Your task to perform on an android device: change the clock display to digital Image 0: 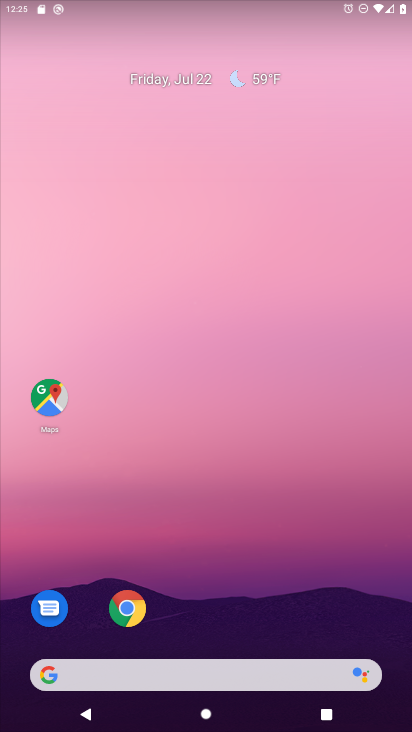
Step 0: drag from (337, 599) to (160, 5)
Your task to perform on an android device: change the clock display to digital Image 1: 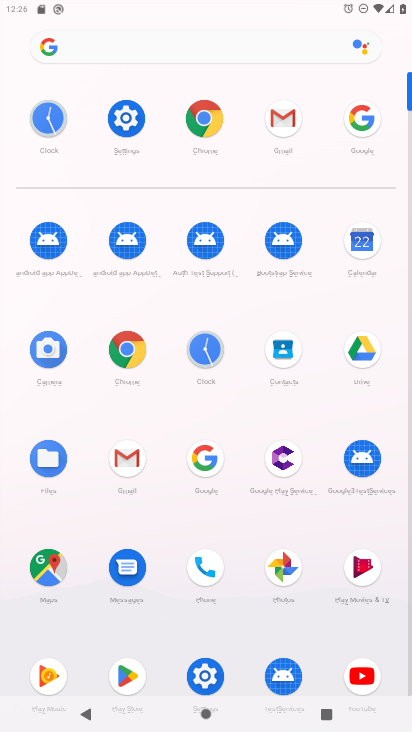
Step 1: click (205, 350)
Your task to perform on an android device: change the clock display to digital Image 2: 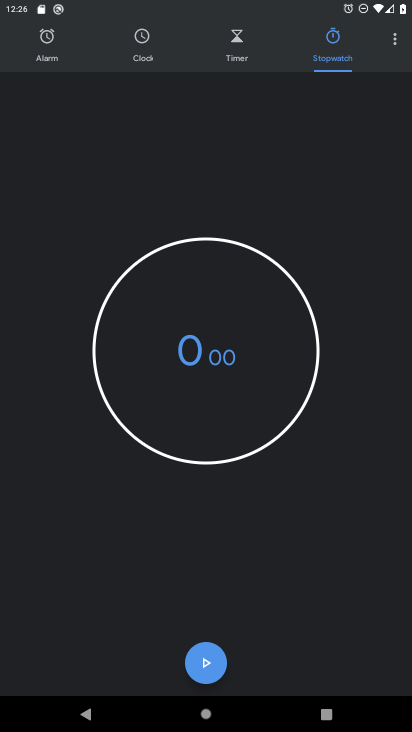
Step 2: click (390, 34)
Your task to perform on an android device: change the clock display to digital Image 3: 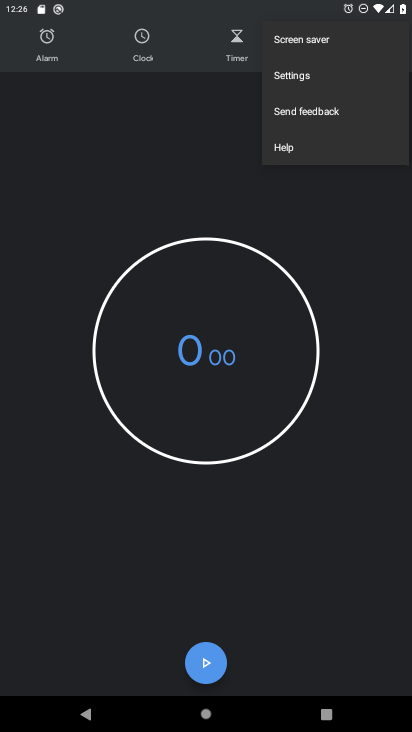
Step 3: click (303, 73)
Your task to perform on an android device: change the clock display to digital Image 4: 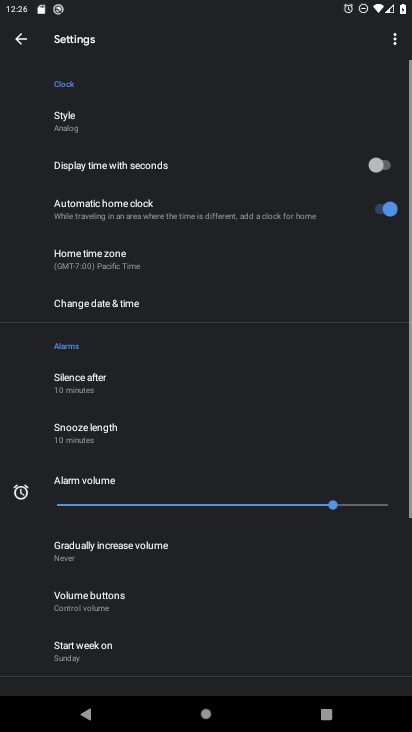
Step 4: click (73, 113)
Your task to perform on an android device: change the clock display to digital Image 5: 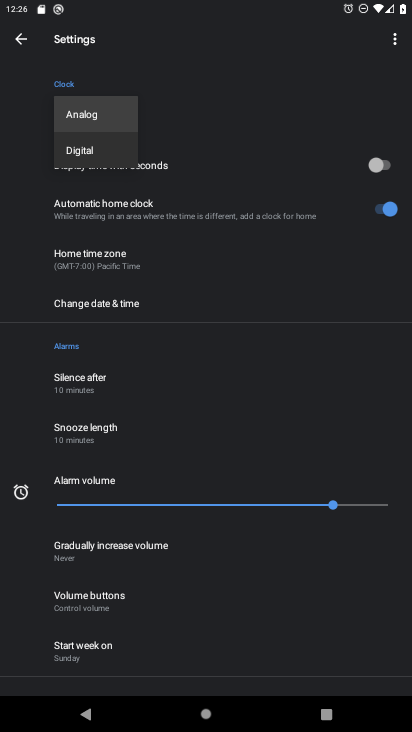
Step 5: click (88, 143)
Your task to perform on an android device: change the clock display to digital Image 6: 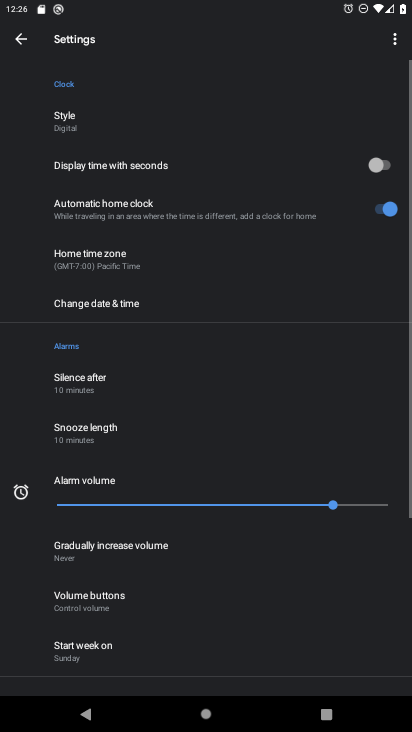
Step 6: task complete